Your task to perform on an android device: turn on improve location accuracy Image 0: 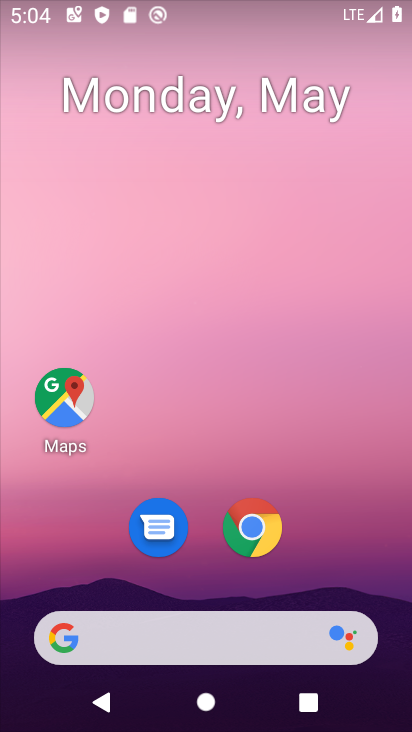
Step 0: drag from (392, 597) to (364, 172)
Your task to perform on an android device: turn on improve location accuracy Image 1: 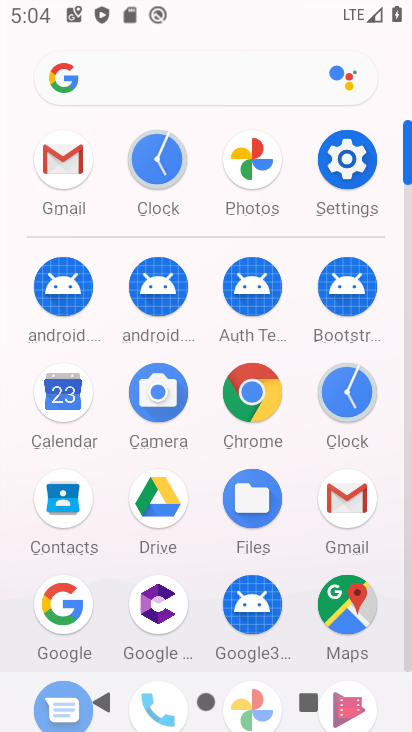
Step 1: click (352, 165)
Your task to perform on an android device: turn on improve location accuracy Image 2: 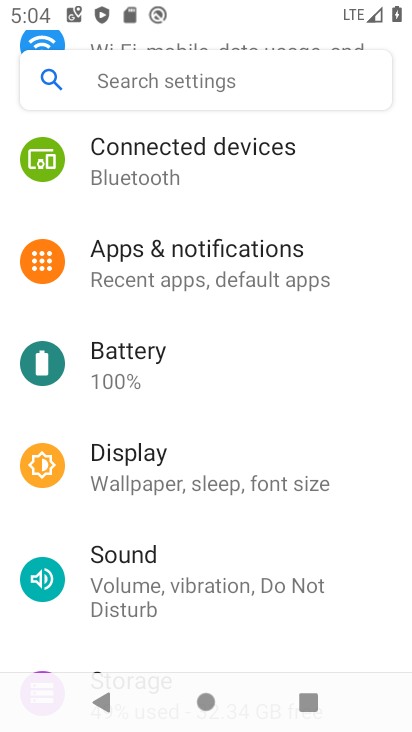
Step 2: drag from (289, 517) to (275, 195)
Your task to perform on an android device: turn on improve location accuracy Image 3: 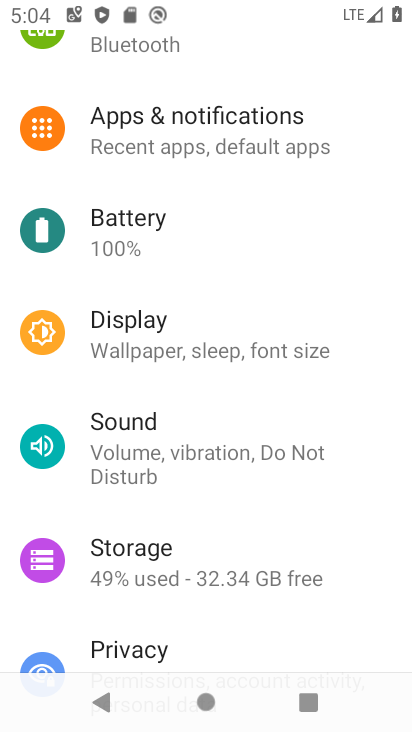
Step 3: drag from (239, 600) to (239, 303)
Your task to perform on an android device: turn on improve location accuracy Image 4: 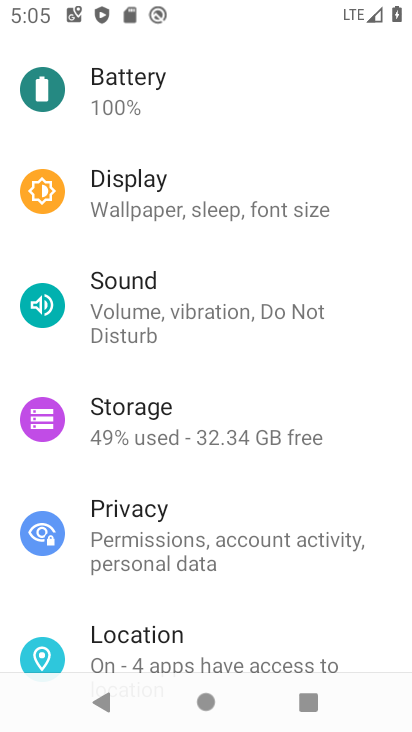
Step 4: click (120, 637)
Your task to perform on an android device: turn on improve location accuracy Image 5: 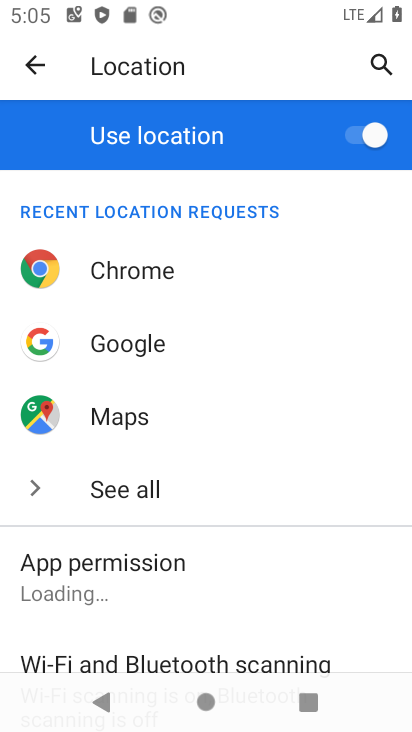
Step 5: drag from (254, 639) to (272, 254)
Your task to perform on an android device: turn on improve location accuracy Image 6: 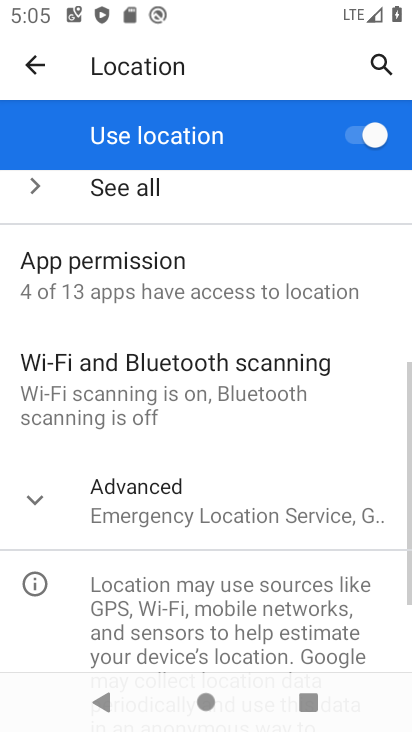
Step 6: click (47, 498)
Your task to perform on an android device: turn on improve location accuracy Image 7: 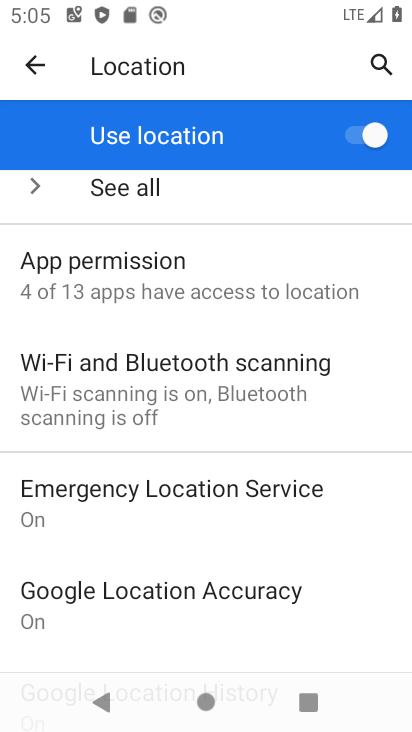
Step 7: task complete